Your task to perform on an android device: change the upload size in google photos Image 0: 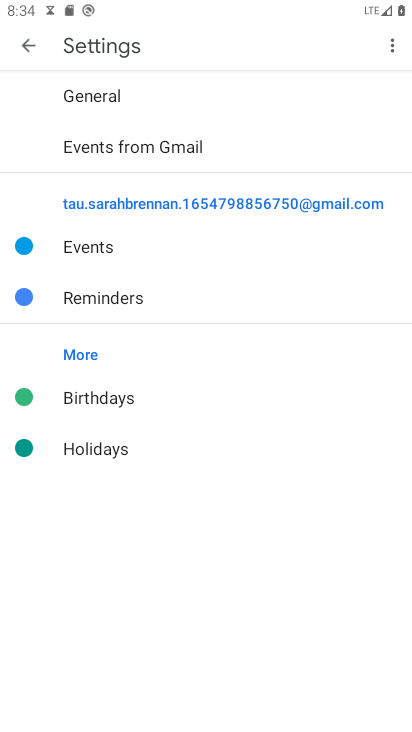
Step 0: press home button
Your task to perform on an android device: change the upload size in google photos Image 1: 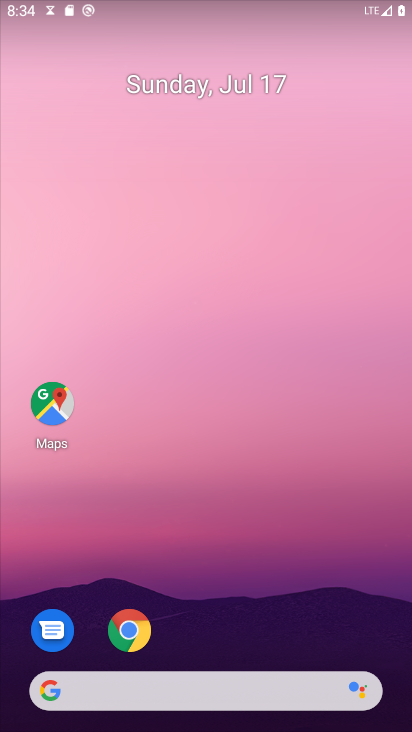
Step 1: drag from (207, 538) to (157, 23)
Your task to perform on an android device: change the upload size in google photos Image 2: 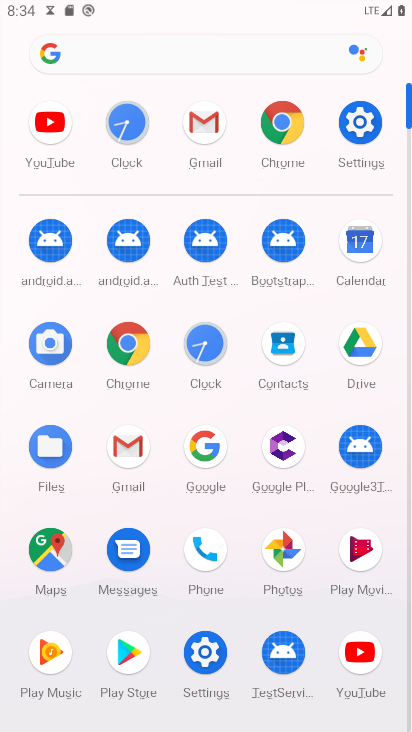
Step 2: click (281, 559)
Your task to perform on an android device: change the upload size in google photos Image 3: 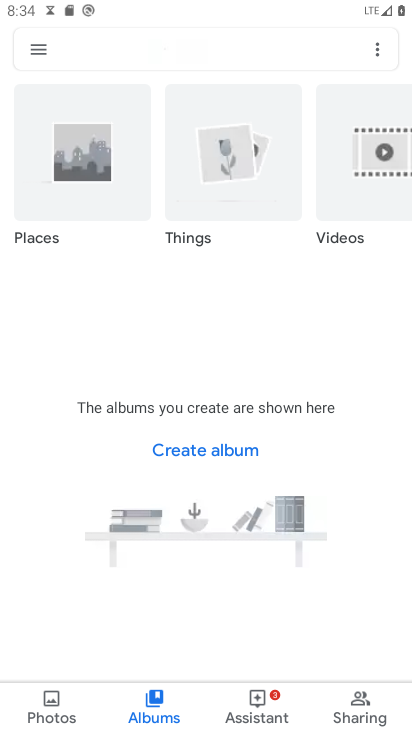
Step 3: click (38, 42)
Your task to perform on an android device: change the upload size in google photos Image 4: 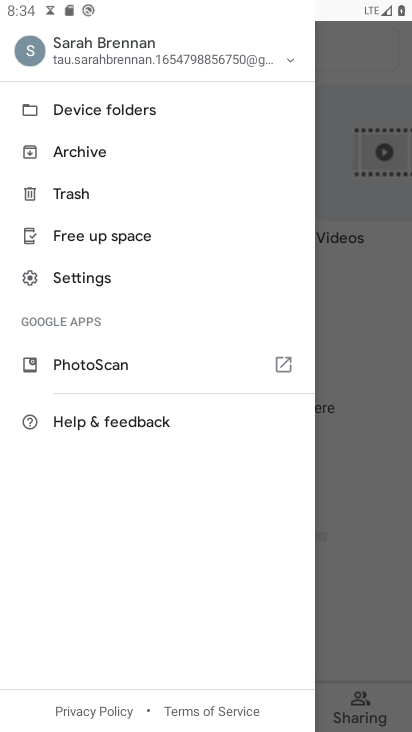
Step 4: click (81, 282)
Your task to perform on an android device: change the upload size in google photos Image 5: 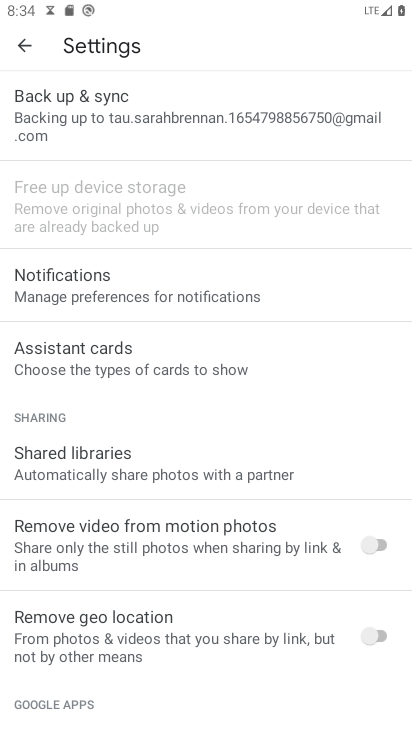
Step 5: click (98, 121)
Your task to perform on an android device: change the upload size in google photos Image 6: 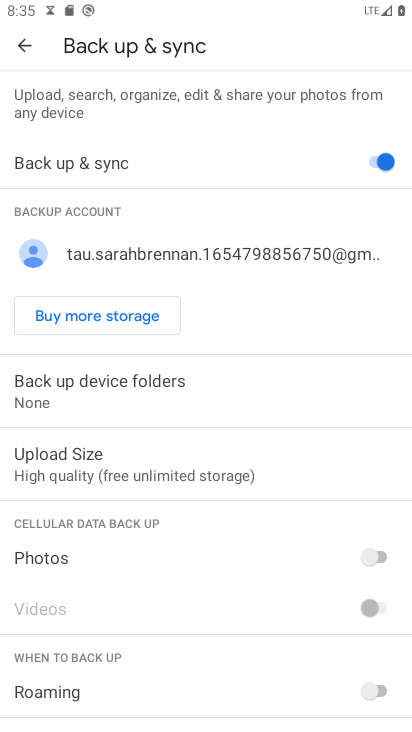
Step 6: click (121, 469)
Your task to perform on an android device: change the upload size in google photos Image 7: 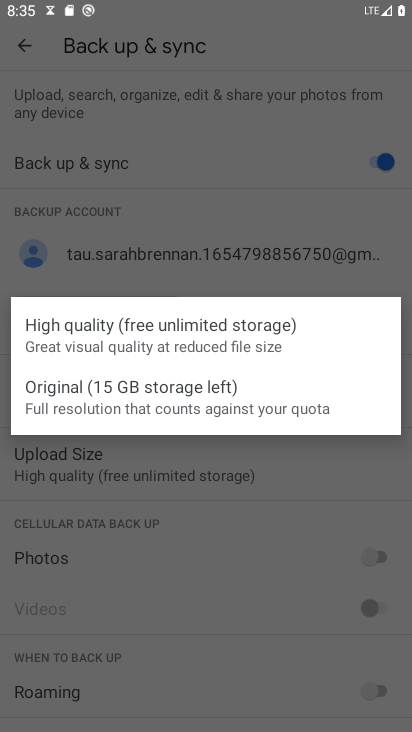
Step 7: click (117, 392)
Your task to perform on an android device: change the upload size in google photos Image 8: 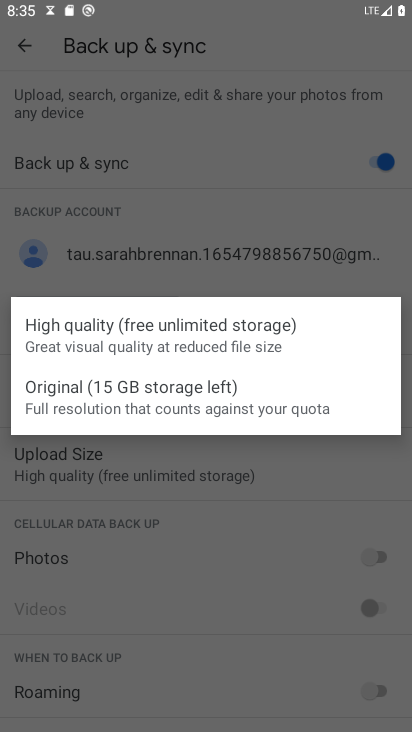
Step 8: click (114, 392)
Your task to perform on an android device: change the upload size in google photos Image 9: 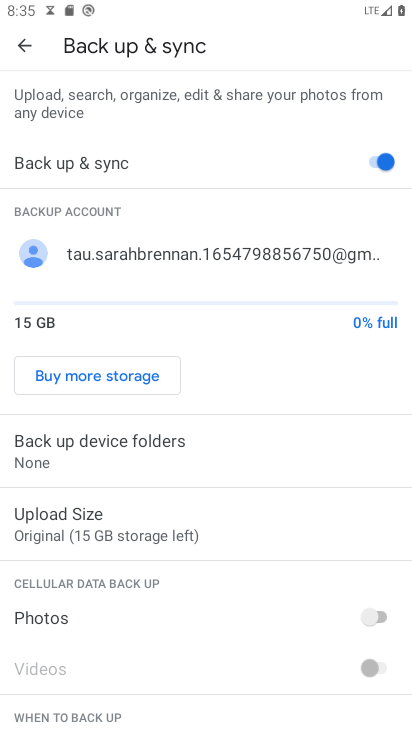
Step 9: task complete